Your task to perform on an android device: check the backup settings in the google photos Image 0: 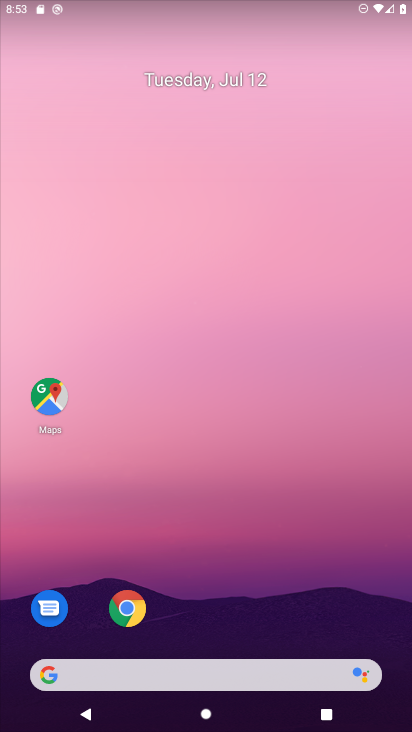
Step 0: drag from (195, 639) to (212, 236)
Your task to perform on an android device: check the backup settings in the google photos Image 1: 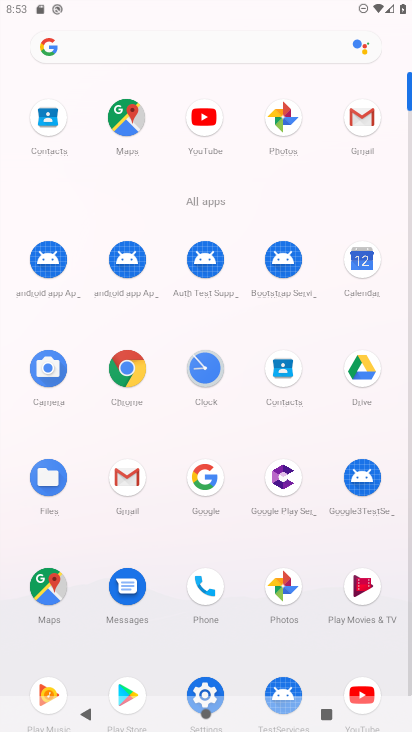
Step 1: click (284, 127)
Your task to perform on an android device: check the backup settings in the google photos Image 2: 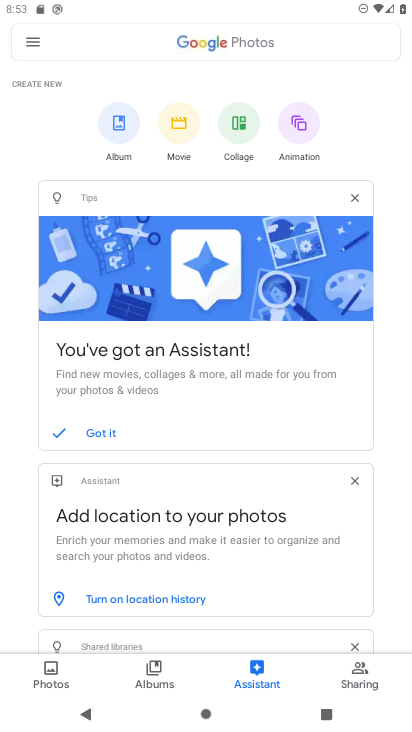
Step 2: click (62, 672)
Your task to perform on an android device: check the backup settings in the google photos Image 3: 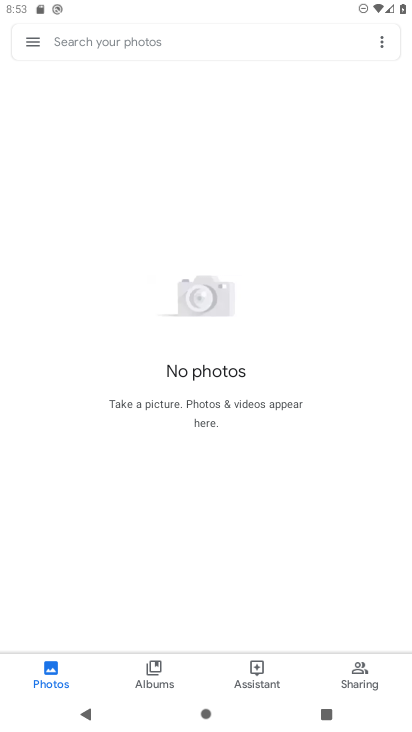
Step 3: click (45, 45)
Your task to perform on an android device: check the backup settings in the google photos Image 4: 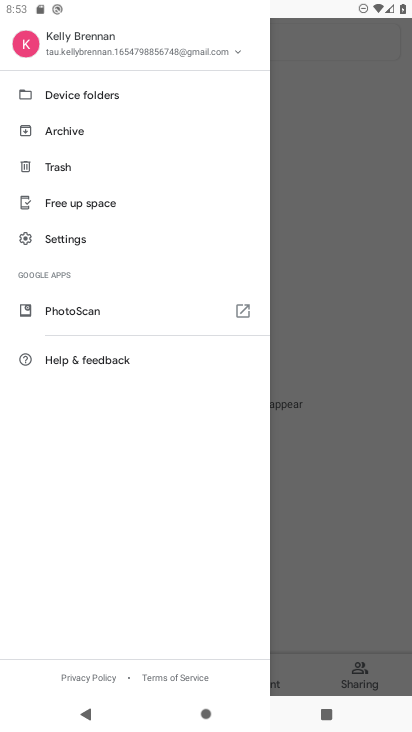
Step 4: click (110, 235)
Your task to perform on an android device: check the backup settings in the google photos Image 5: 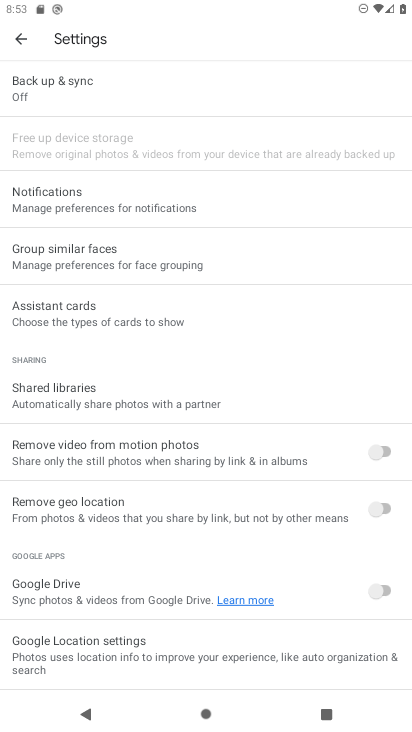
Step 5: click (60, 102)
Your task to perform on an android device: check the backup settings in the google photos Image 6: 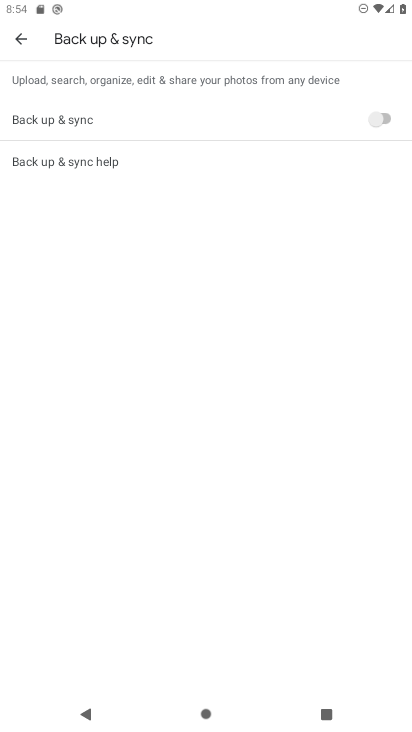
Step 6: task complete